Your task to perform on an android device: Open battery settings Image 0: 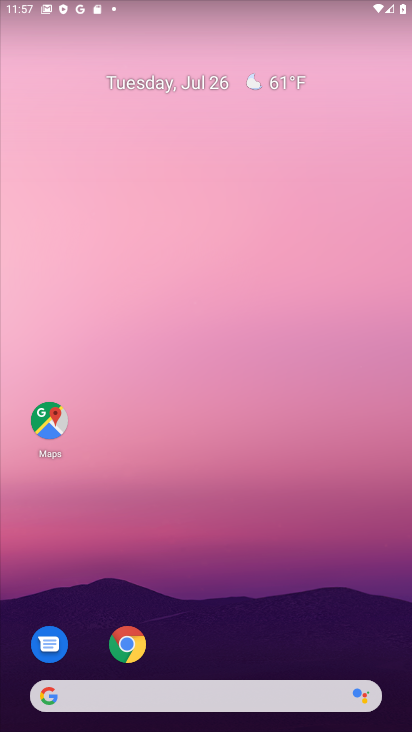
Step 0: drag from (185, 671) to (235, 338)
Your task to perform on an android device: Open battery settings Image 1: 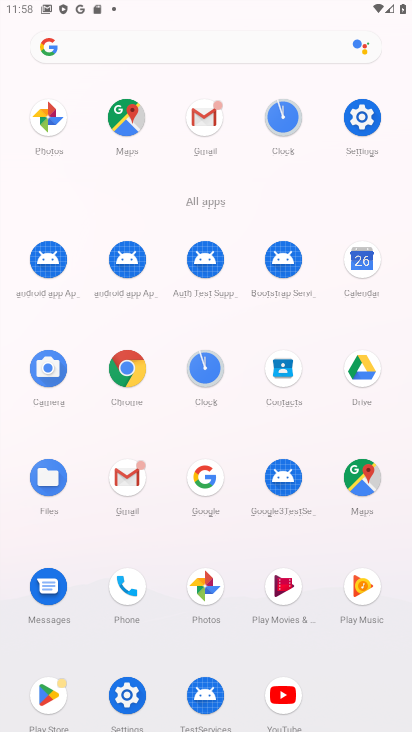
Step 1: click (353, 128)
Your task to perform on an android device: Open battery settings Image 2: 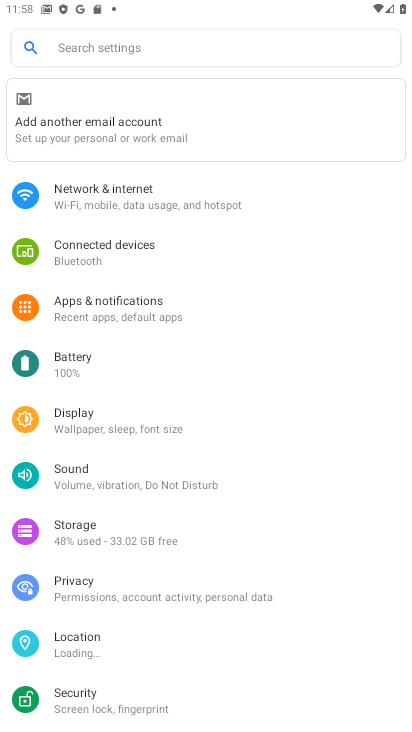
Step 2: click (96, 368)
Your task to perform on an android device: Open battery settings Image 3: 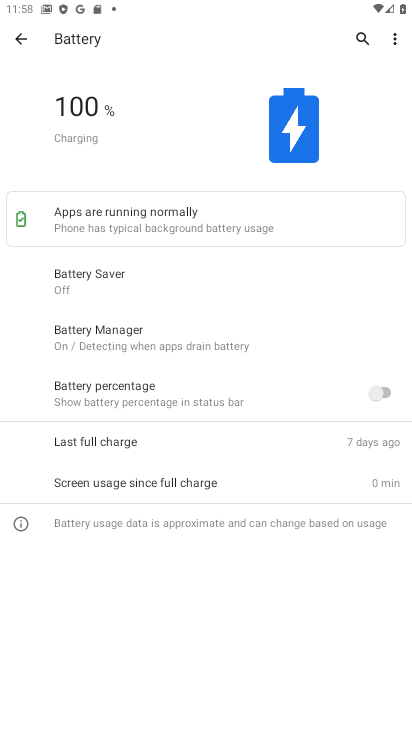
Step 3: task complete